Your task to perform on an android device: toggle wifi Image 0: 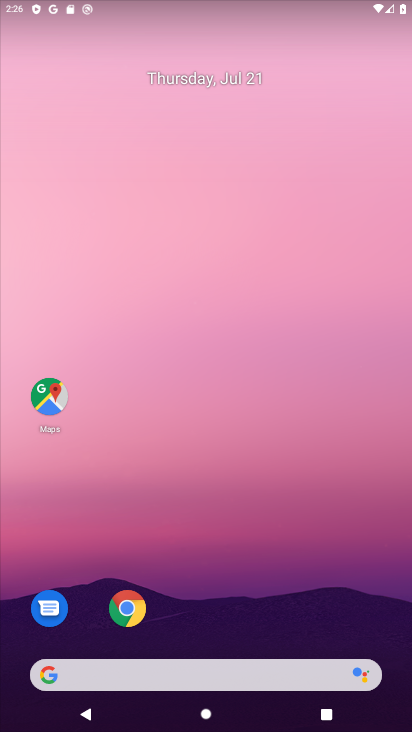
Step 0: drag from (206, 650) to (175, 73)
Your task to perform on an android device: toggle wifi Image 1: 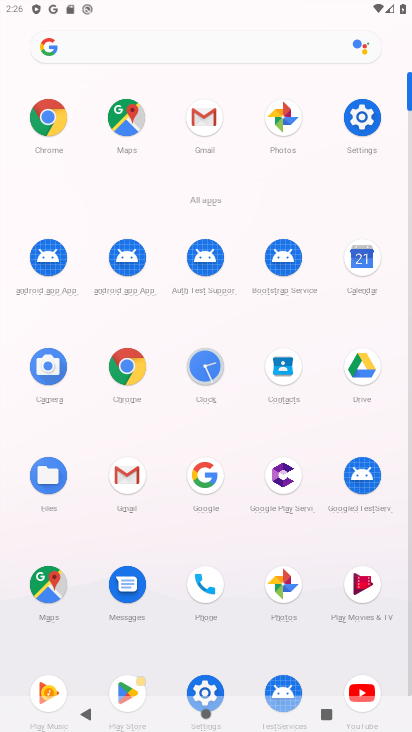
Step 1: click (201, 681)
Your task to perform on an android device: toggle wifi Image 2: 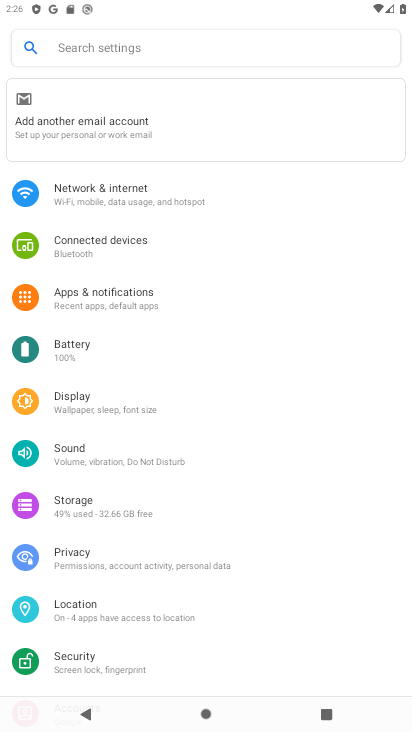
Step 2: click (103, 201)
Your task to perform on an android device: toggle wifi Image 3: 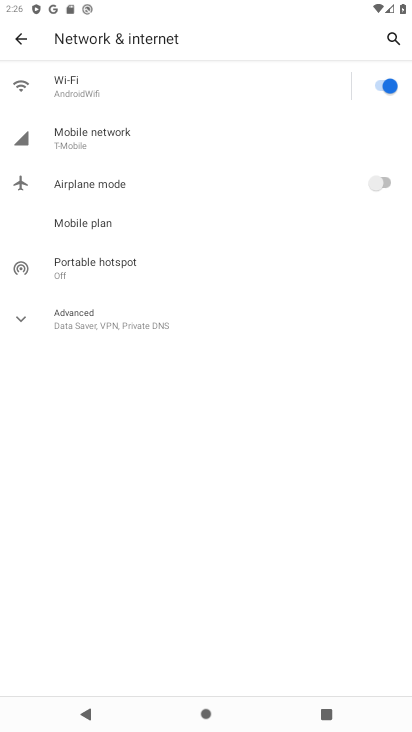
Step 3: click (115, 91)
Your task to perform on an android device: toggle wifi Image 4: 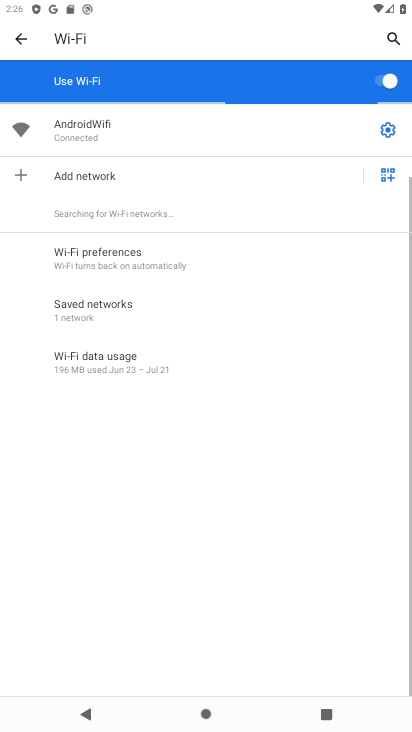
Step 4: click (383, 68)
Your task to perform on an android device: toggle wifi Image 5: 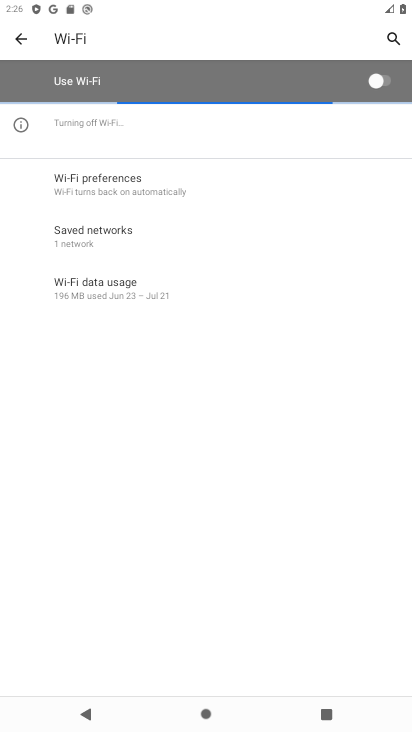
Step 5: task complete